Your task to perform on an android device: Search for vegetarian restaurants on Maps Image 0: 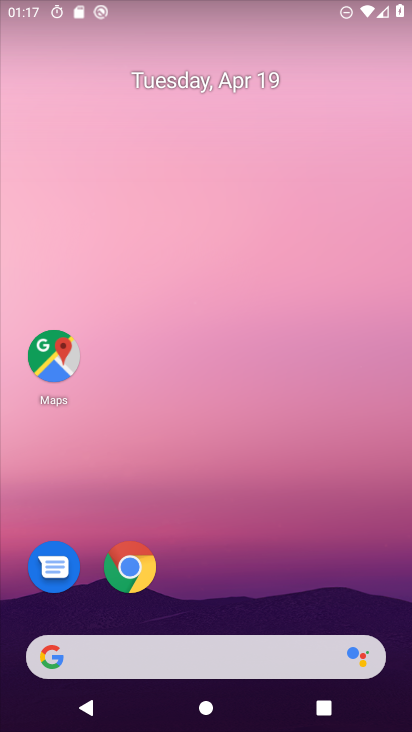
Step 0: drag from (270, 560) to (267, 132)
Your task to perform on an android device: Search for vegetarian restaurants on Maps Image 1: 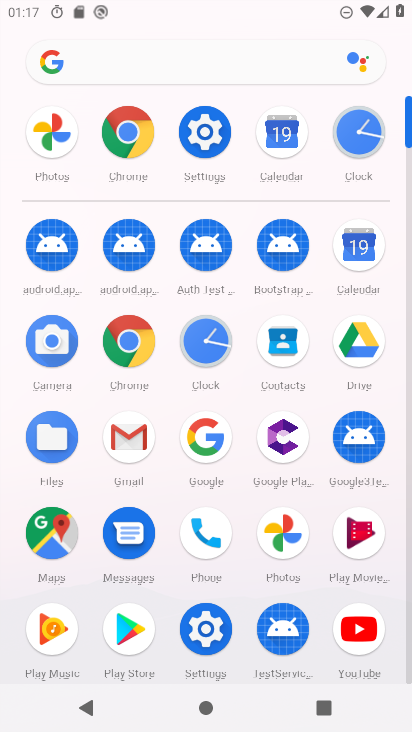
Step 1: click (56, 534)
Your task to perform on an android device: Search for vegetarian restaurants on Maps Image 2: 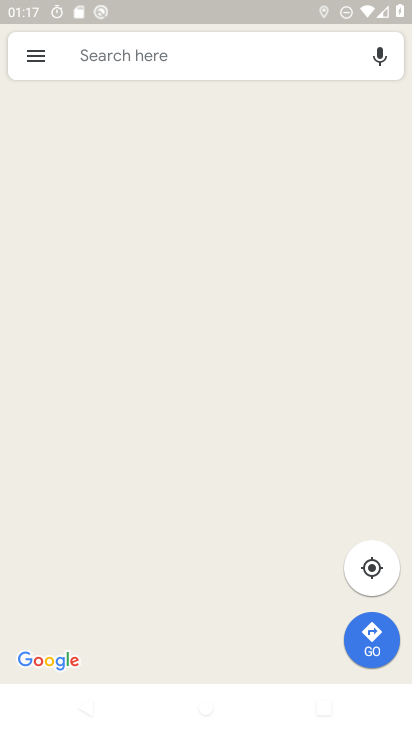
Step 2: click (256, 56)
Your task to perform on an android device: Search for vegetarian restaurants on Maps Image 3: 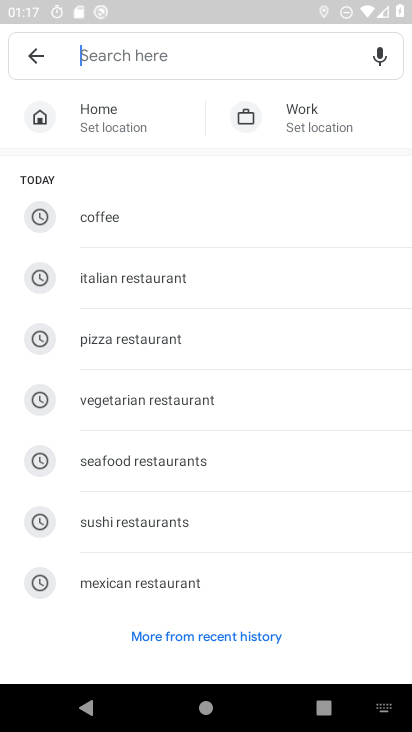
Step 3: type "vegearian restaurants"
Your task to perform on an android device: Search for vegetarian restaurants on Maps Image 4: 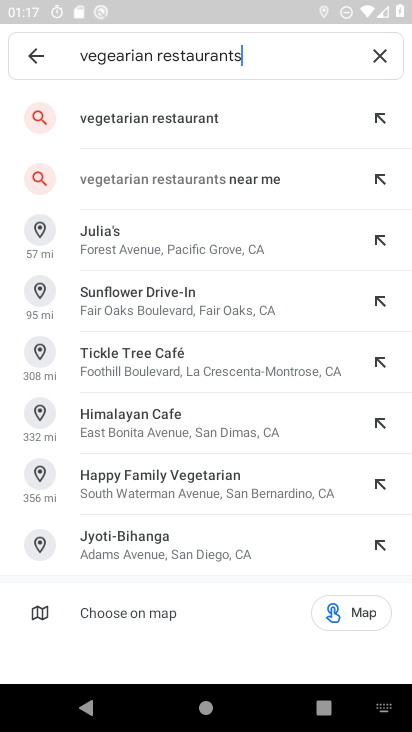
Step 4: press enter
Your task to perform on an android device: Search for vegetarian restaurants on Maps Image 5: 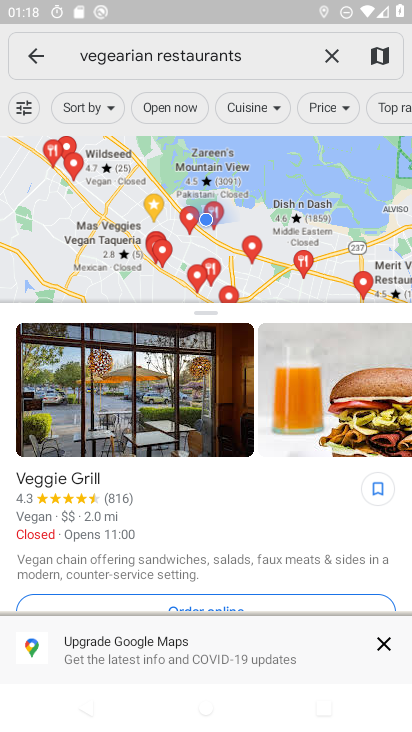
Step 5: task complete